Your task to perform on an android device: turn on bluetooth scan Image 0: 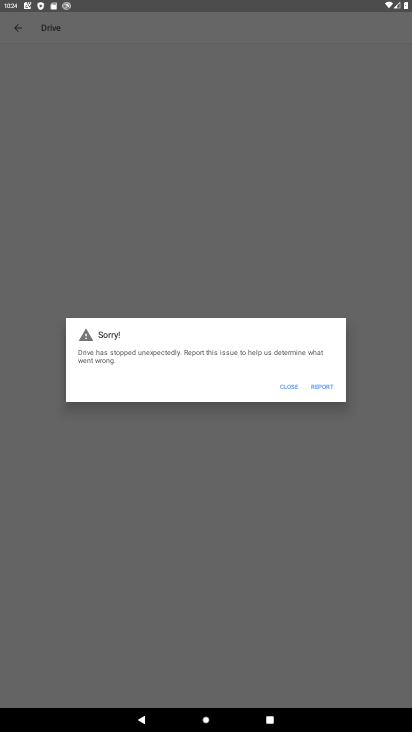
Step 0: press home button
Your task to perform on an android device: turn on bluetooth scan Image 1: 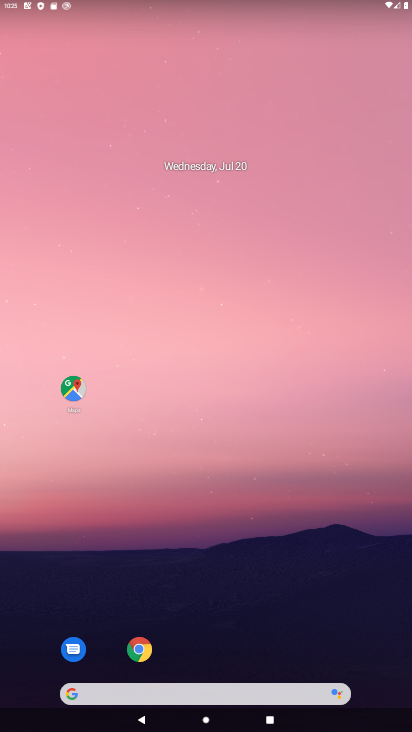
Step 1: drag from (353, 641) to (353, 129)
Your task to perform on an android device: turn on bluetooth scan Image 2: 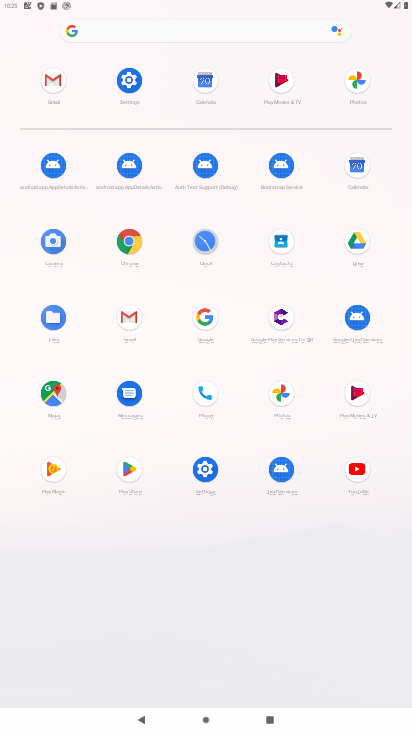
Step 2: click (125, 94)
Your task to perform on an android device: turn on bluetooth scan Image 3: 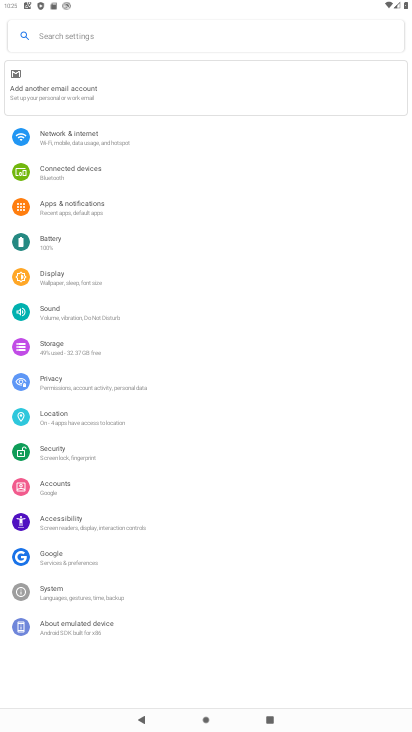
Step 3: task complete